Your task to perform on an android device: Open settings on Google Maps Image 0: 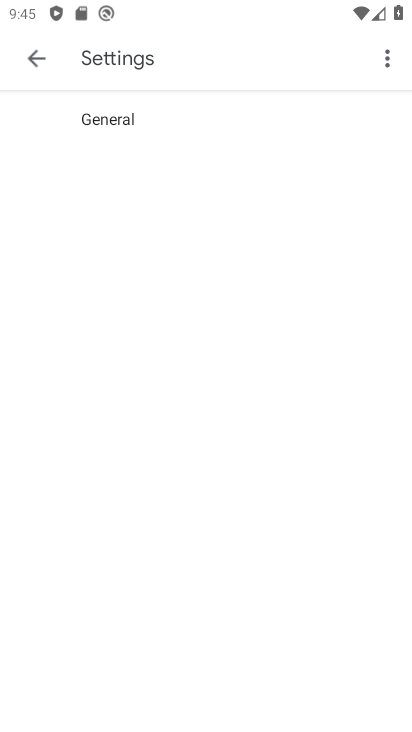
Step 0: press home button
Your task to perform on an android device: Open settings on Google Maps Image 1: 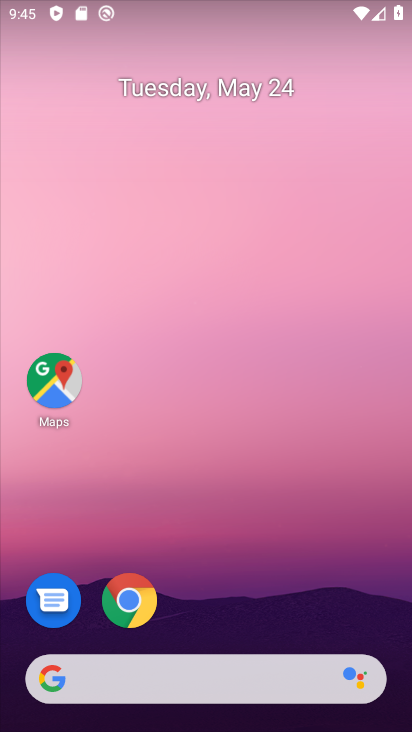
Step 1: click (71, 376)
Your task to perform on an android device: Open settings on Google Maps Image 2: 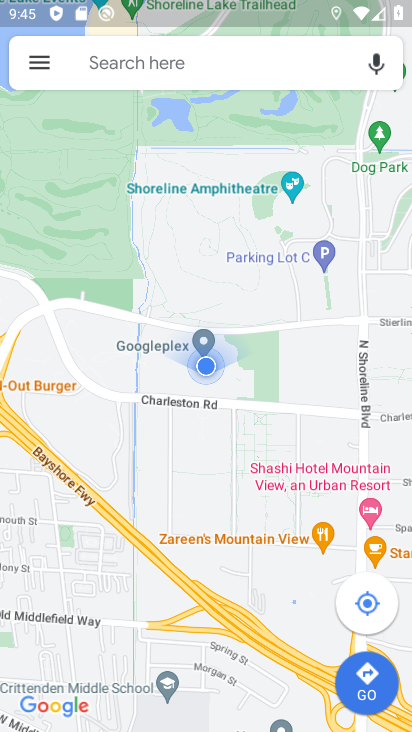
Step 2: task complete